Your task to perform on an android device: What is the recent news? Image 0: 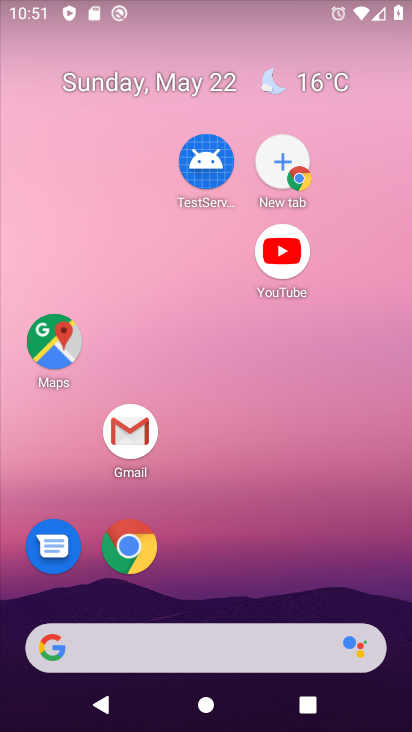
Step 0: drag from (251, 634) to (210, 213)
Your task to perform on an android device: What is the recent news? Image 1: 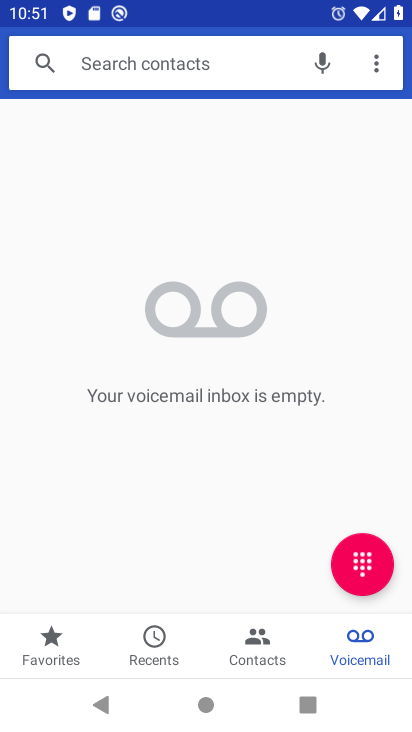
Step 1: press back button
Your task to perform on an android device: What is the recent news? Image 2: 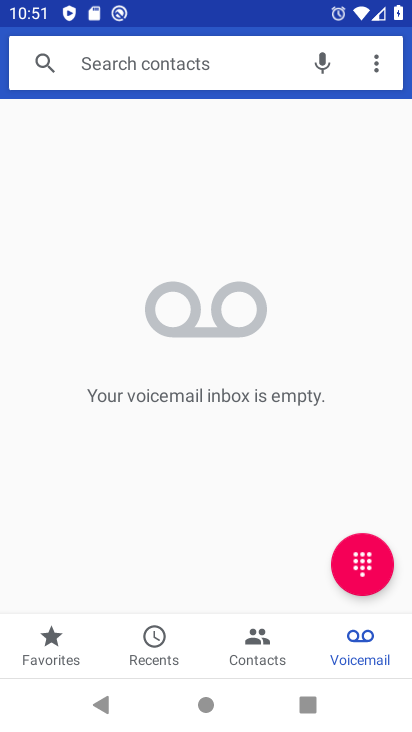
Step 2: press back button
Your task to perform on an android device: What is the recent news? Image 3: 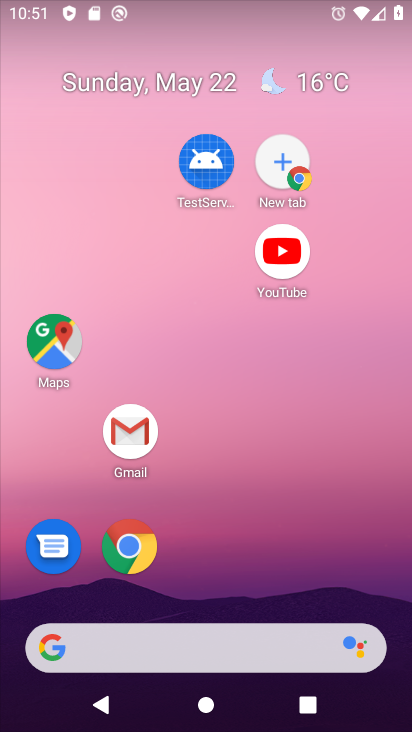
Step 3: drag from (8, 221) to (383, 348)
Your task to perform on an android device: What is the recent news? Image 4: 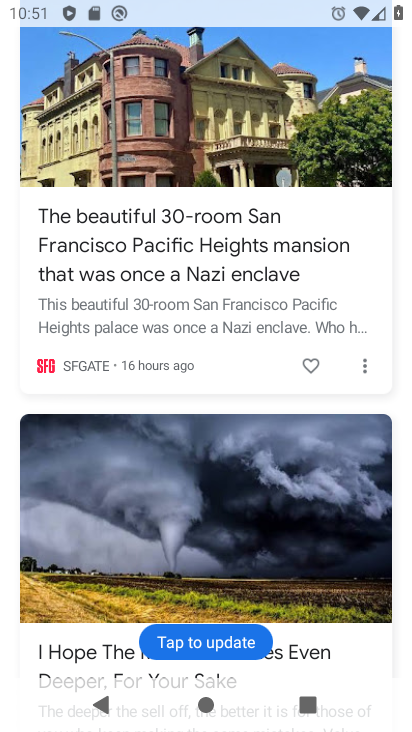
Step 4: drag from (259, 566) to (155, 43)
Your task to perform on an android device: What is the recent news? Image 5: 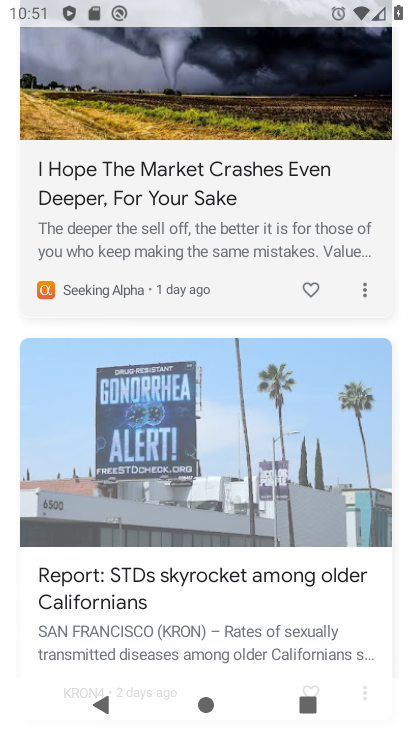
Step 5: click (268, 53)
Your task to perform on an android device: What is the recent news? Image 6: 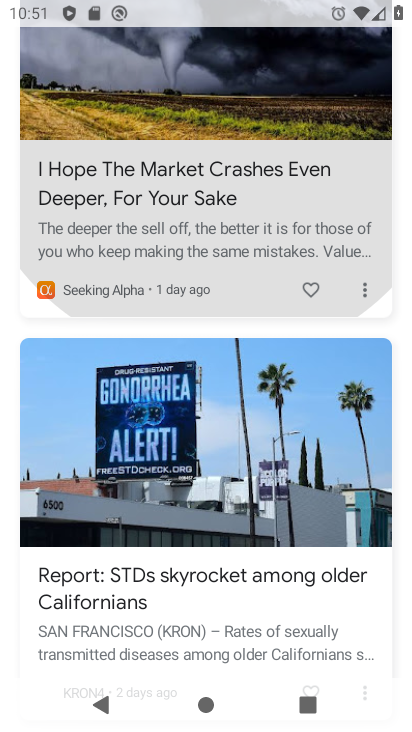
Step 6: drag from (275, 210) to (275, 55)
Your task to perform on an android device: What is the recent news? Image 7: 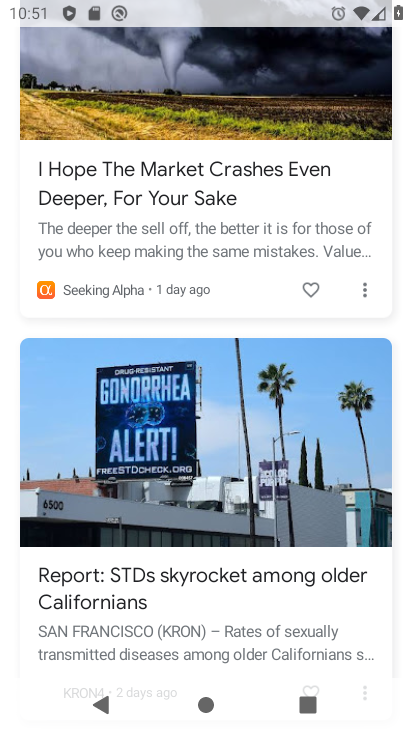
Step 7: drag from (281, 361) to (281, 14)
Your task to perform on an android device: What is the recent news? Image 8: 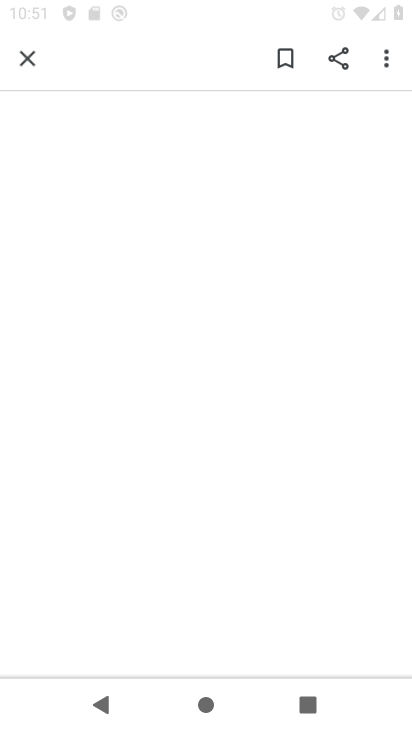
Step 8: drag from (270, 462) to (253, 5)
Your task to perform on an android device: What is the recent news? Image 9: 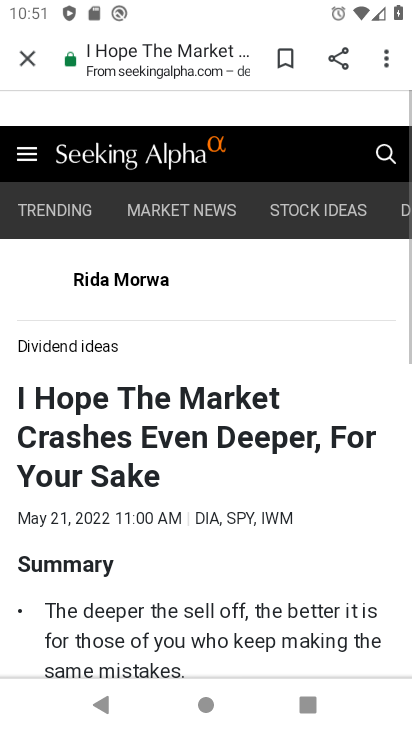
Step 9: click (14, 63)
Your task to perform on an android device: What is the recent news? Image 10: 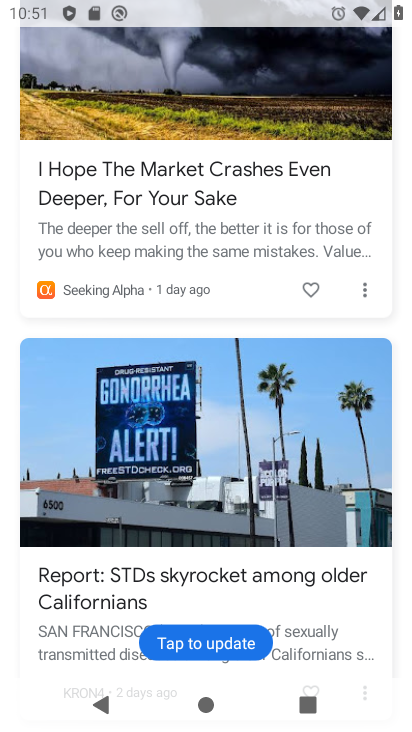
Step 10: task complete